Your task to perform on an android device: Open CNN.com Image 0: 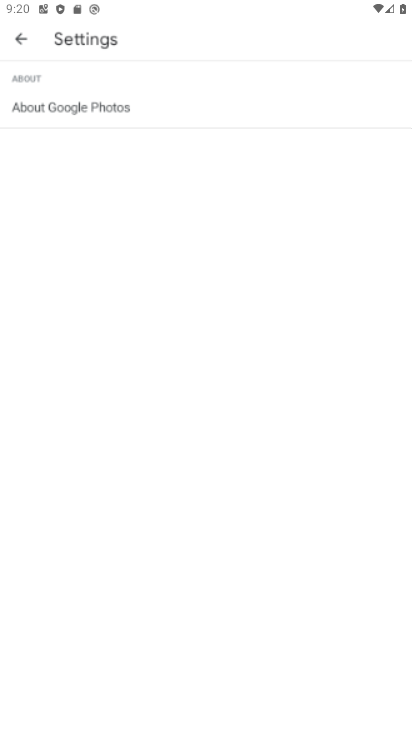
Step 0: drag from (245, 694) to (300, 246)
Your task to perform on an android device: Open CNN.com Image 1: 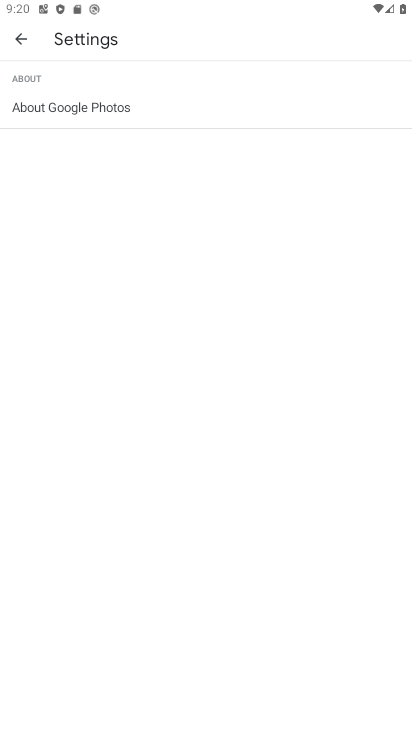
Step 1: press home button
Your task to perform on an android device: Open CNN.com Image 2: 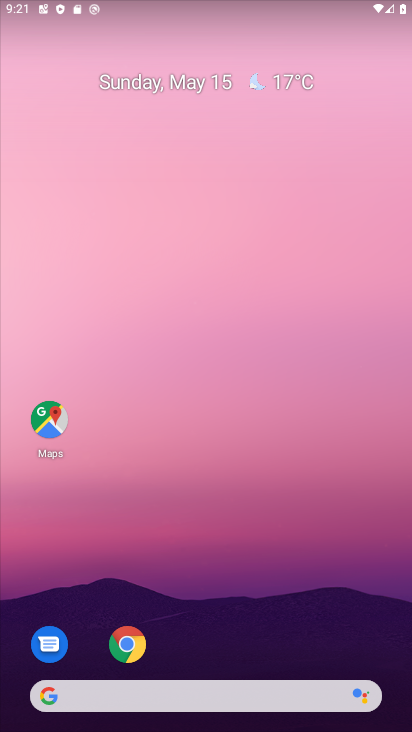
Step 2: drag from (212, 714) to (262, 24)
Your task to perform on an android device: Open CNN.com Image 3: 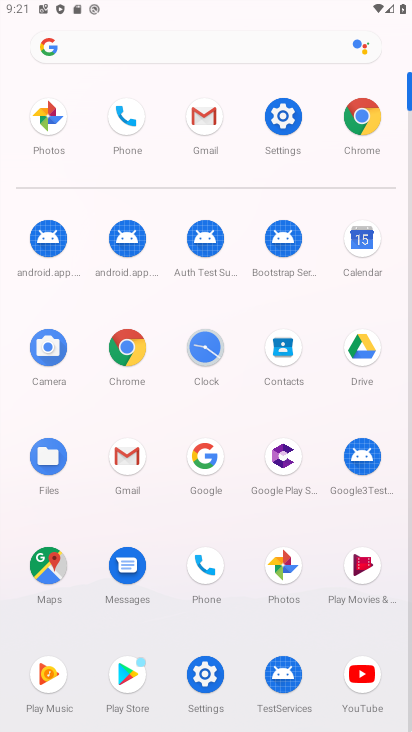
Step 3: click (348, 116)
Your task to perform on an android device: Open CNN.com Image 4: 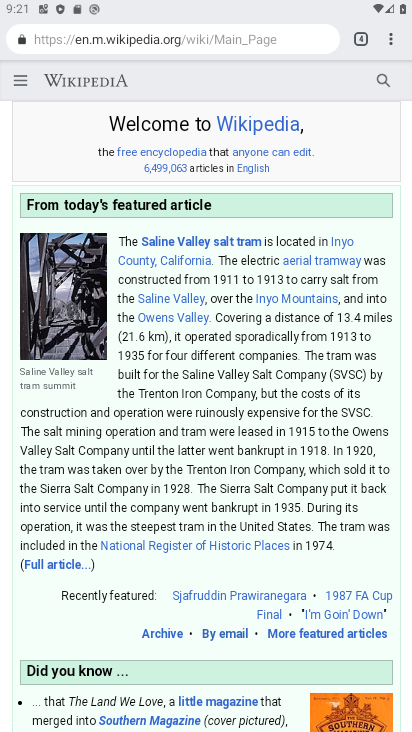
Step 4: click (226, 33)
Your task to perform on an android device: Open CNN.com Image 5: 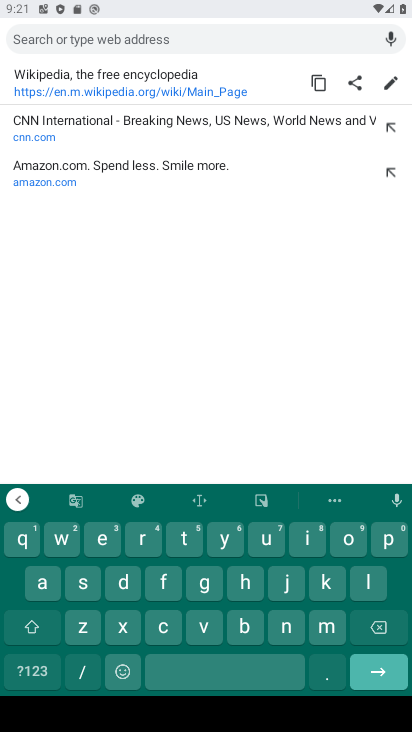
Step 5: click (165, 613)
Your task to perform on an android device: Open CNN.com Image 6: 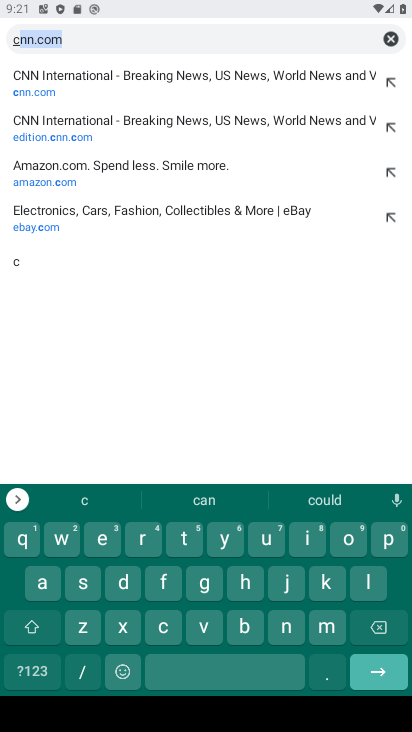
Step 6: click (105, 37)
Your task to perform on an android device: Open CNN.com Image 7: 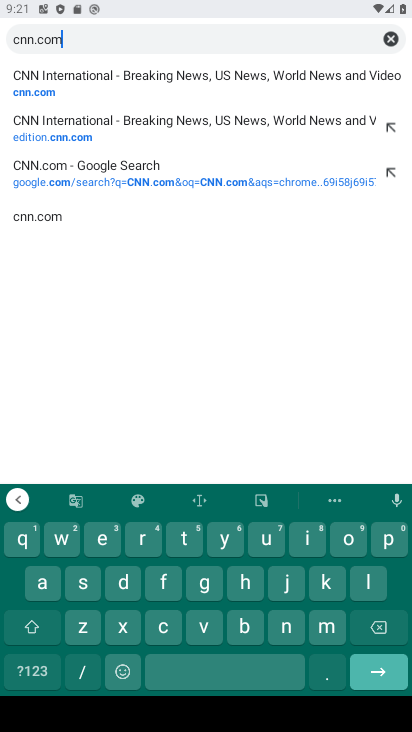
Step 7: click (380, 677)
Your task to perform on an android device: Open CNN.com Image 8: 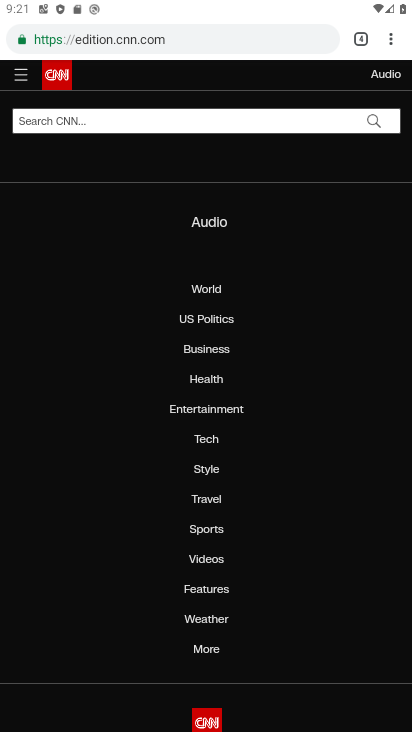
Step 8: task complete